Your task to perform on an android device: turn off data saver in the chrome app Image 0: 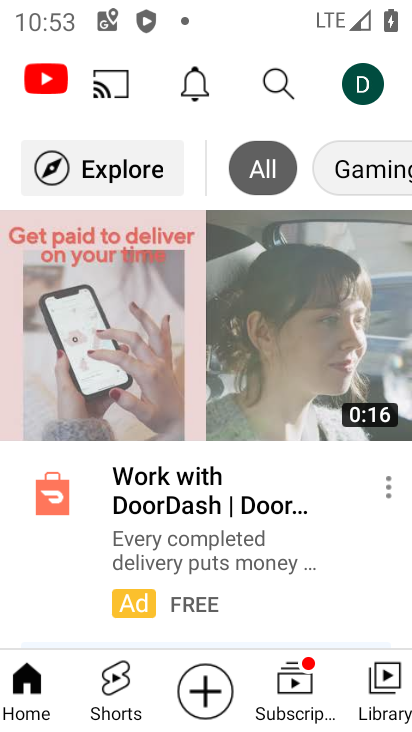
Step 0: press home button
Your task to perform on an android device: turn off data saver in the chrome app Image 1: 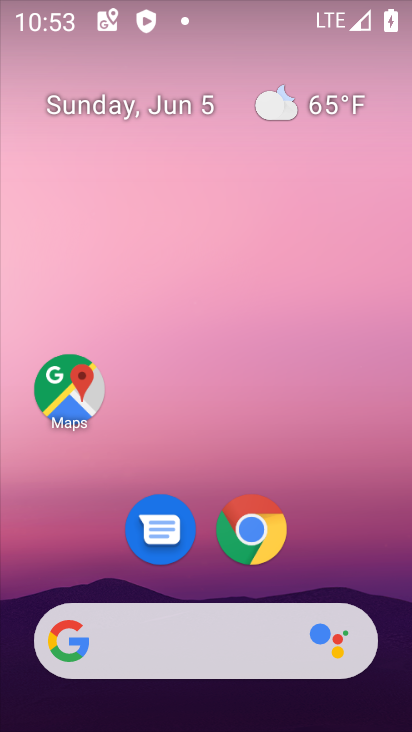
Step 1: click (243, 531)
Your task to perform on an android device: turn off data saver in the chrome app Image 2: 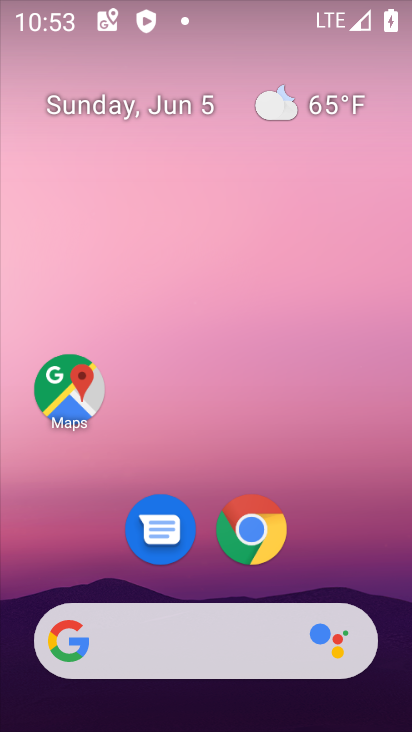
Step 2: click (243, 531)
Your task to perform on an android device: turn off data saver in the chrome app Image 3: 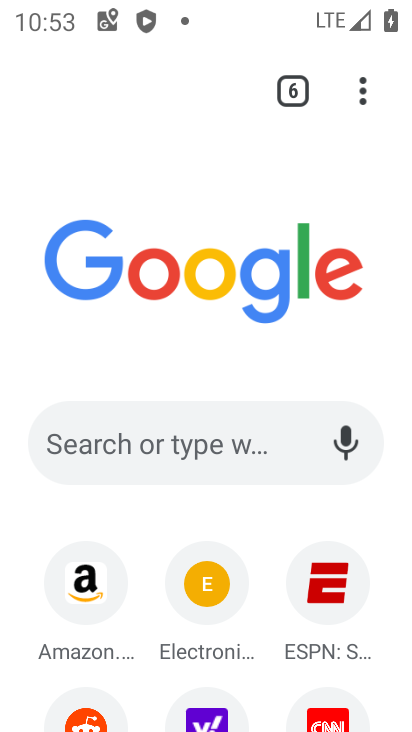
Step 3: click (361, 93)
Your task to perform on an android device: turn off data saver in the chrome app Image 4: 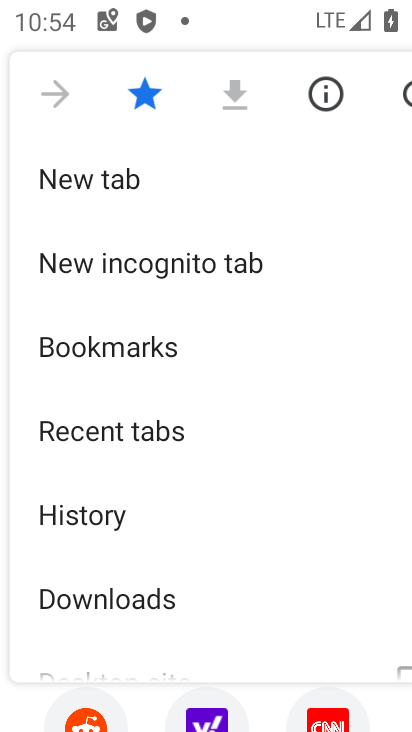
Step 4: drag from (169, 609) to (163, 60)
Your task to perform on an android device: turn off data saver in the chrome app Image 5: 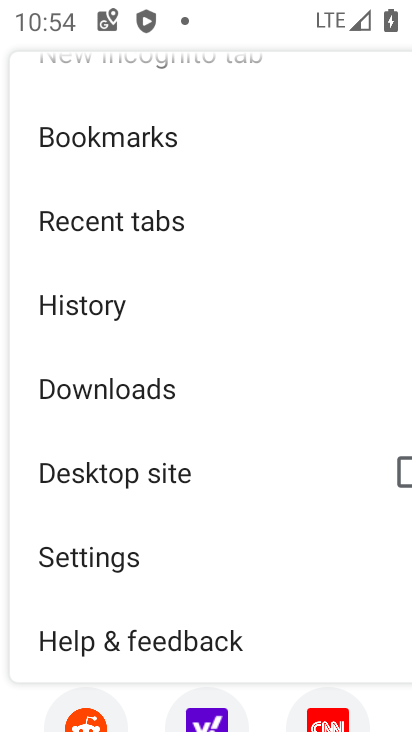
Step 5: click (121, 571)
Your task to perform on an android device: turn off data saver in the chrome app Image 6: 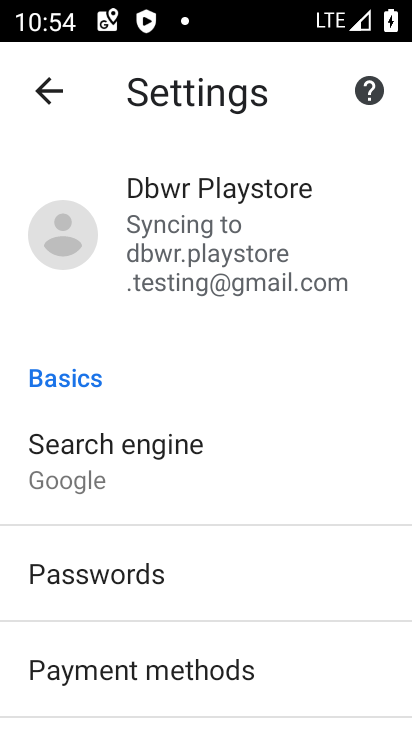
Step 6: drag from (278, 665) to (366, 179)
Your task to perform on an android device: turn off data saver in the chrome app Image 7: 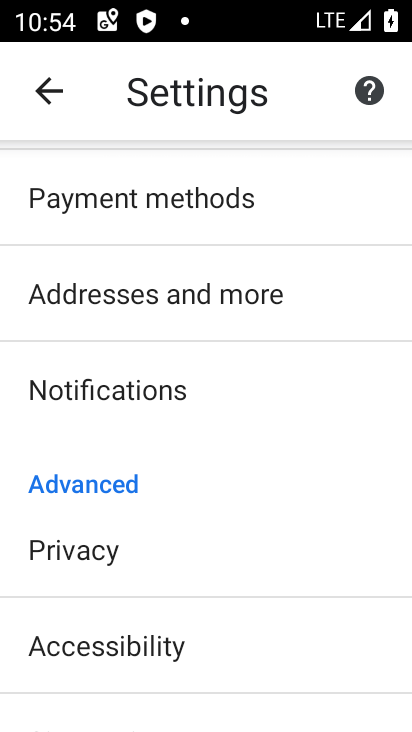
Step 7: drag from (181, 667) to (334, 71)
Your task to perform on an android device: turn off data saver in the chrome app Image 8: 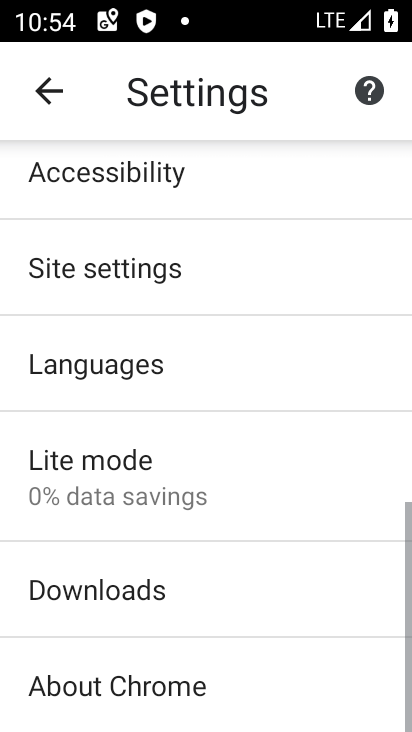
Step 8: click (193, 471)
Your task to perform on an android device: turn off data saver in the chrome app Image 9: 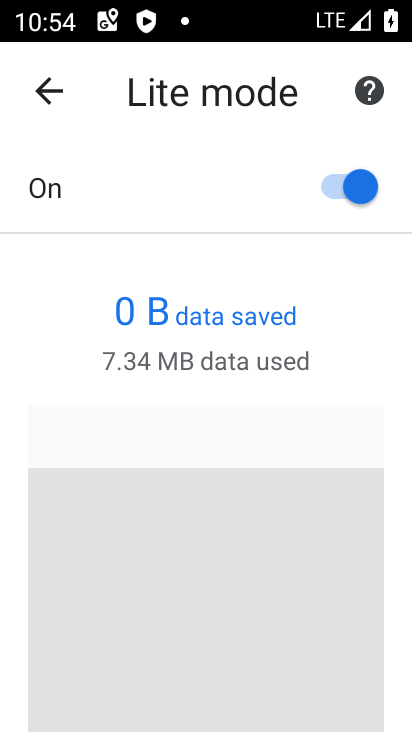
Step 9: click (363, 180)
Your task to perform on an android device: turn off data saver in the chrome app Image 10: 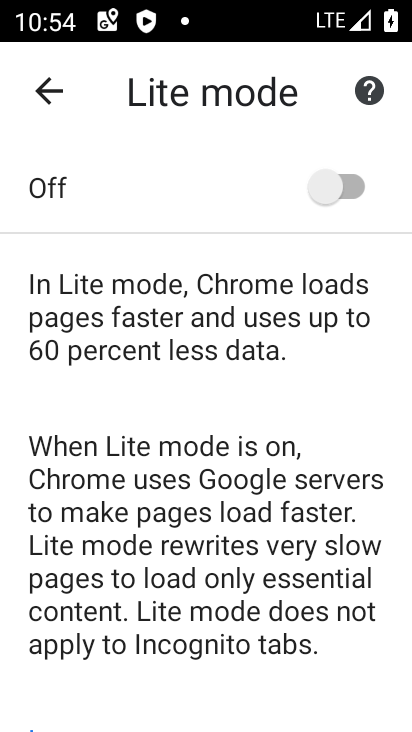
Step 10: task complete